Your task to perform on an android device: move an email to a new category in the gmail app Image 0: 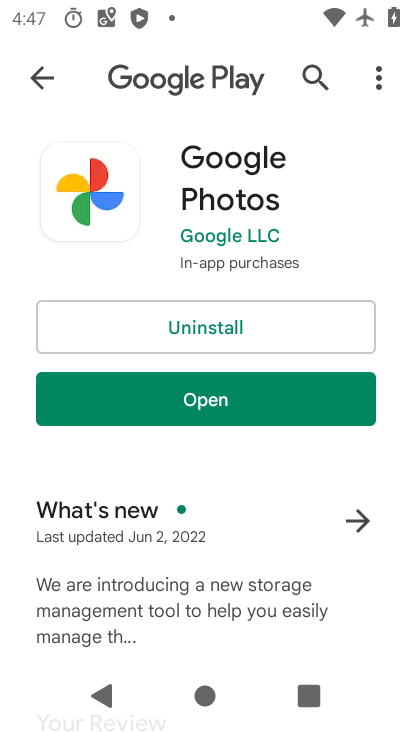
Step 0: press home button
Your task to perform on an android device: move an email to a new category in the gmail app Image 1: 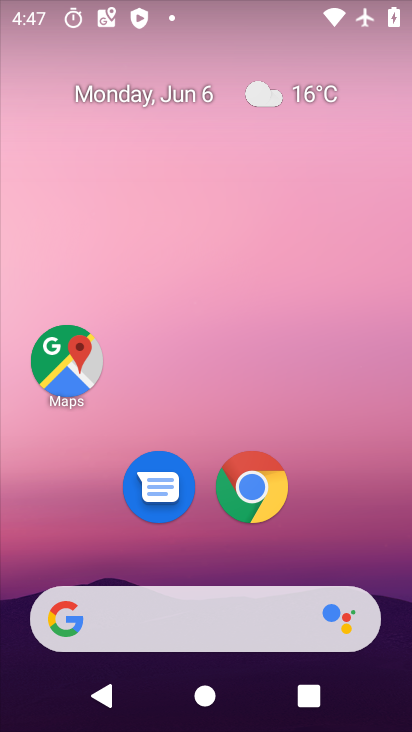
Step 1: drag from (357, 450) to (318, 70)
Your task to perform on an android device: move an email to a new category in the gmail app Image 2: 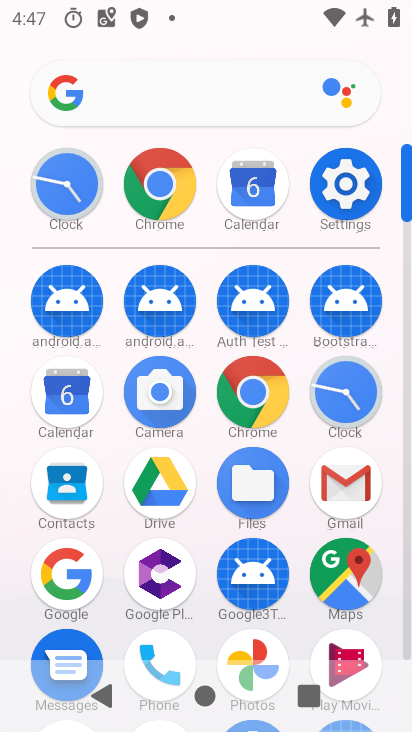
Step 2: click (349, 483)
Your task to perform on an android device: move an email to a new category in the gmail app Image 3: 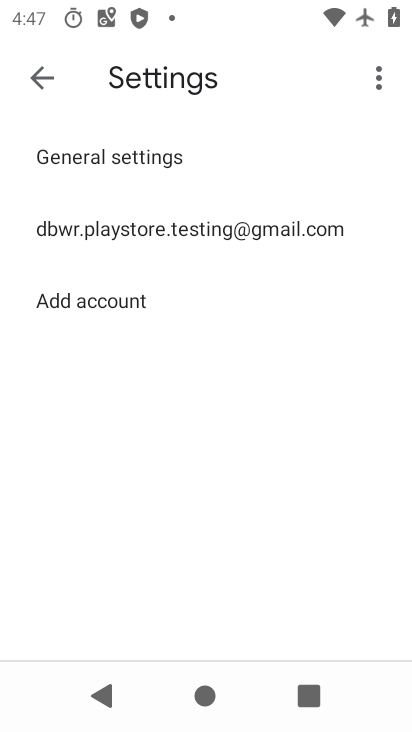
Step 3: click (43, 64)
Your task to perform on an android device: move an email to a new category in the gmail app Image 4: 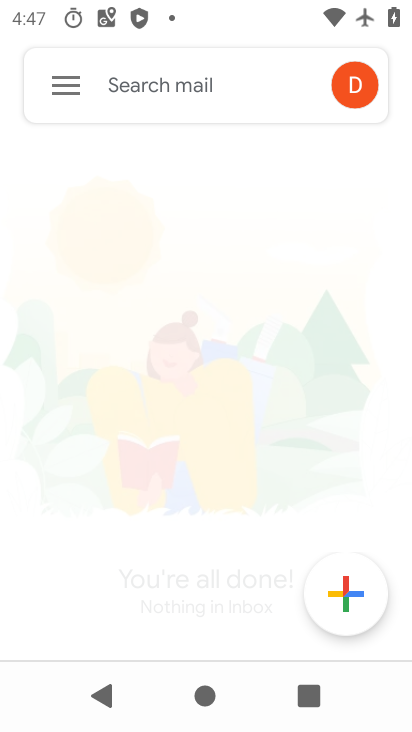
Step 4: click (63, 77)
Your task to perform on an android device: move an email to a new category in the gmail app Image 5: 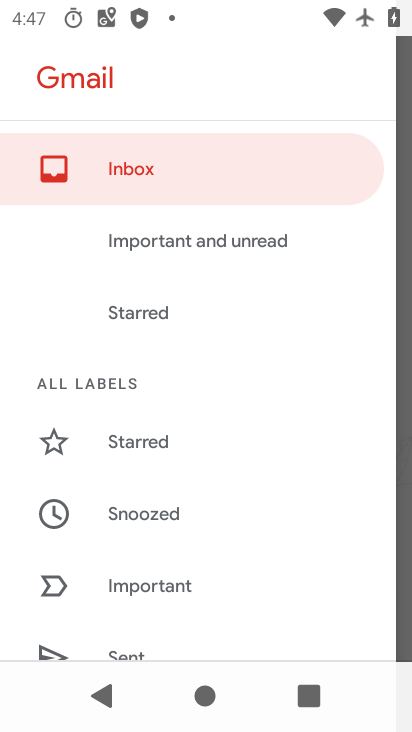
Step 5: drag from (180, 492) to (252, 56)
Your task to perform on an android device: move an email to a new category in the gmail app Image 6: 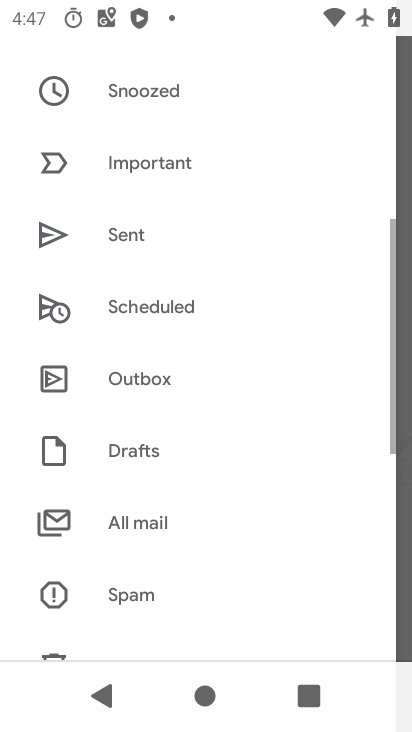
Step 6: click (252, 56)
Your task to perform on an android device: move an email to a new category in the gmail app Image 7: 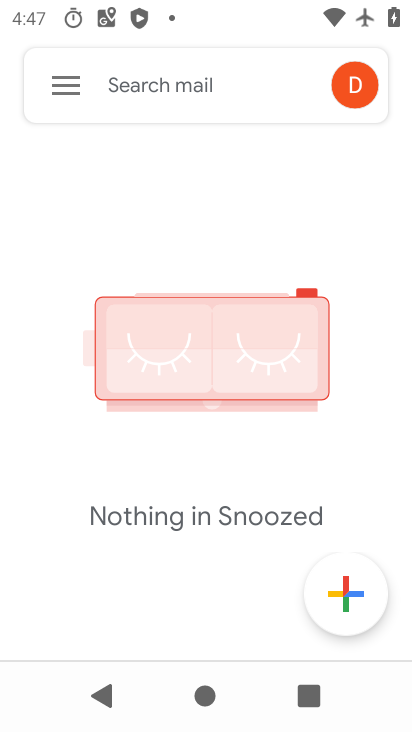
Step 7: click (63, 92)
Your task to perform on an android device: move an email to a new category in the gmail app Image 8: 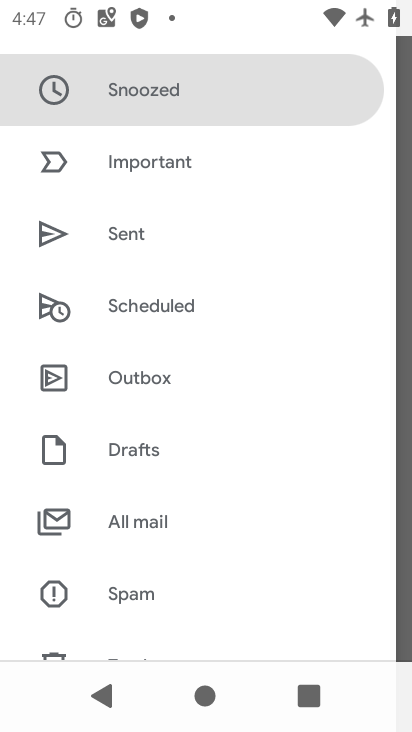
Step 8: click (112, 530)
Your task to perform on an android device: move an email to a new category in the gmail app Image 9: 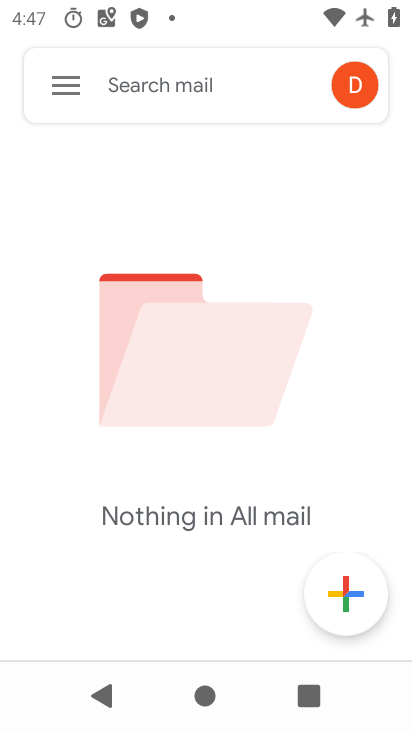
Step 9: task complete